Your task to perform on an android device: Go to calendar. Show me events next week Image 0: 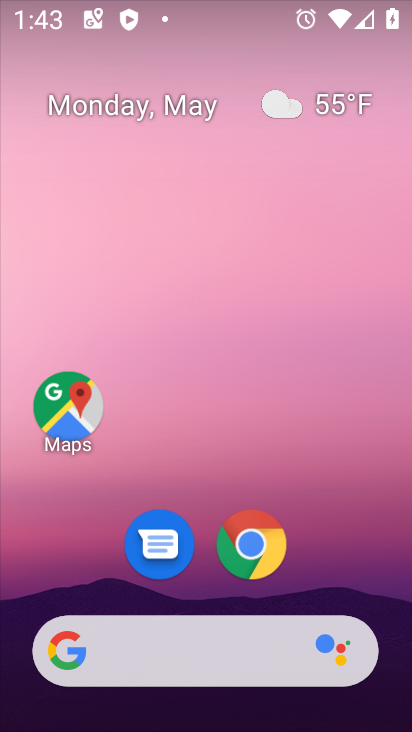
Step 0: drag from (399, 627) to (284, 8)
Your task to perform on an android device: Go to calendar. Show me events next week Image 1: 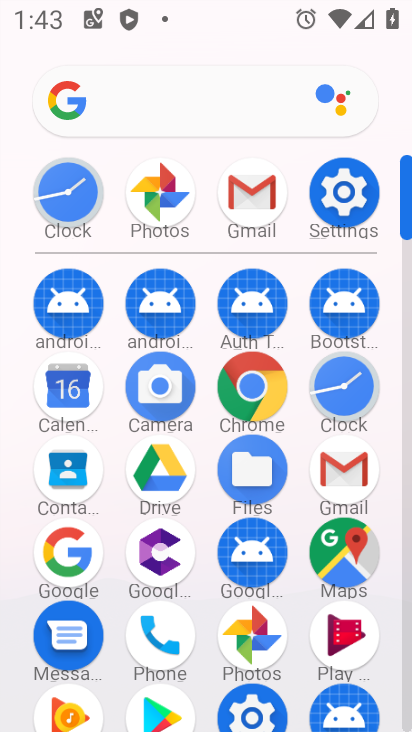
Step 1: click (67, 390)
Your task to perform on an android device: Go to calendar. Show me events next week Image 2: 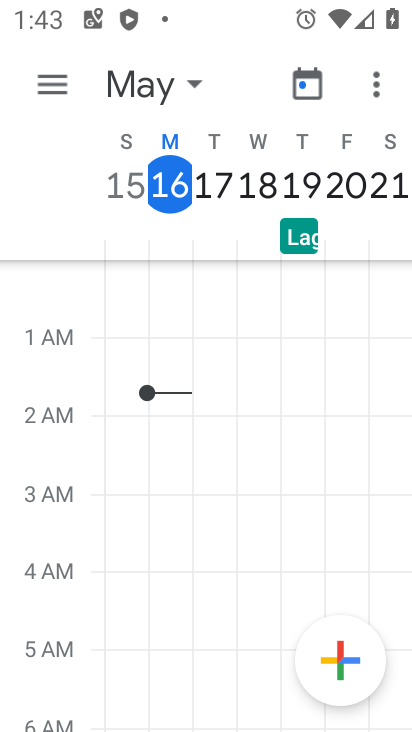
Step 2: click (46, 90)
Your task to perform on an android device: Go to calendar. Show me events next week Image 3: 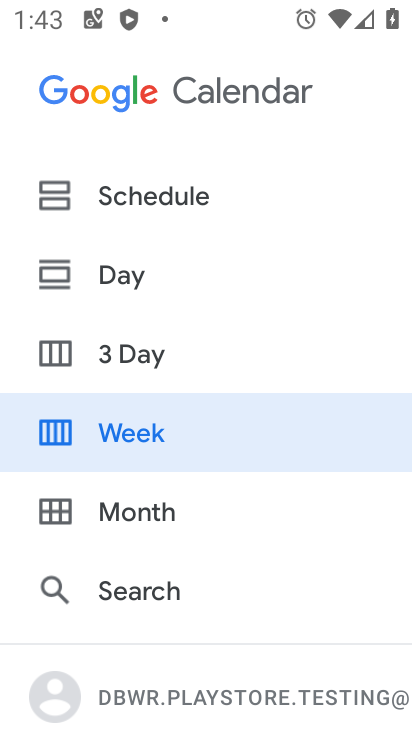
Step 3: click (188, 433)
Your task to perform on an android device: Go to calendar. Show me events next week Image 4: 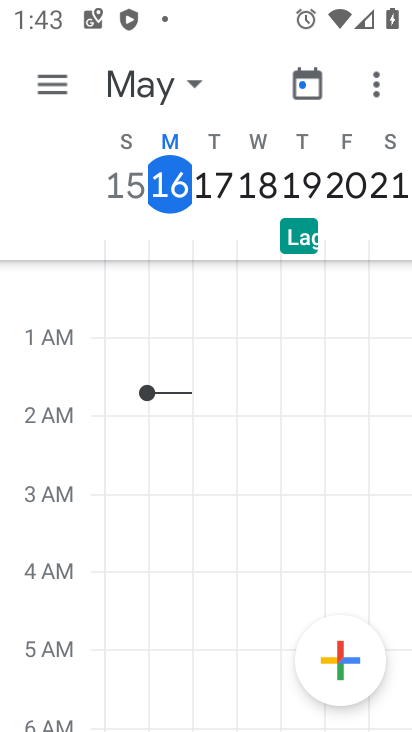
Step 4: click (191, 82)
Your task to perform on an android device: Go to calendar. Show me events next week Image 5: 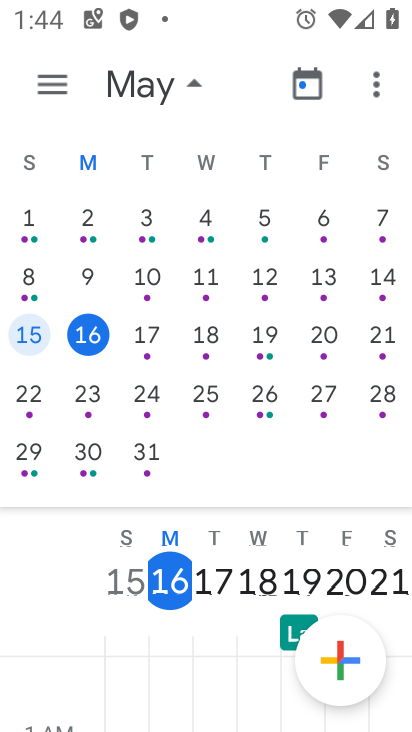
Step 5: click (30, 400)
Your task to perform on an android device: Go to calendar. Show me events next week Image 6: 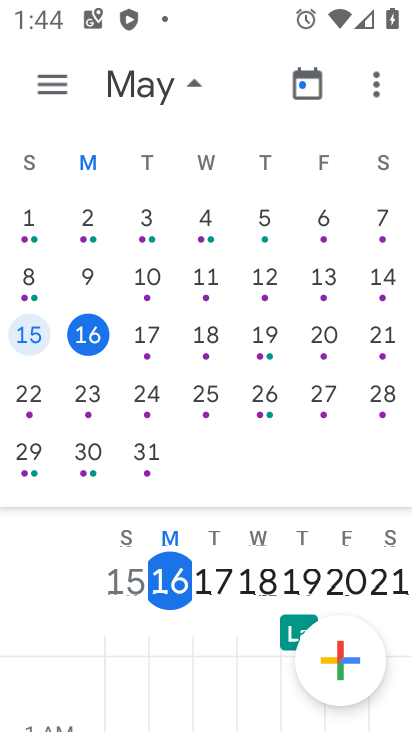
Step 6: click (27, 390)
Your task to perform on an android device: Go to calendar. Show me events next week Image 7: 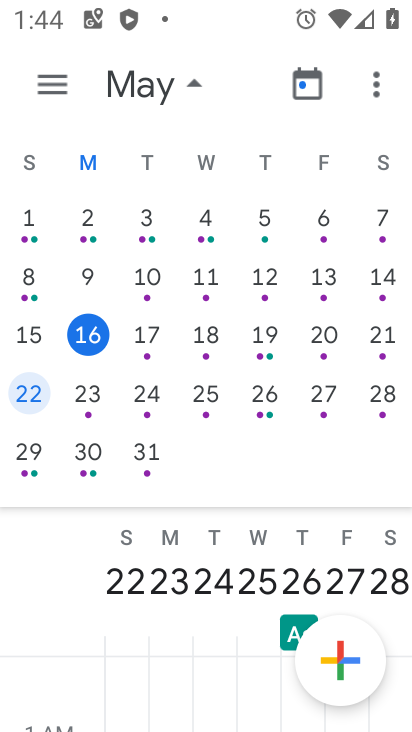
Step 7: task complete